Your task to perform on an android device: add a contact Image 0: 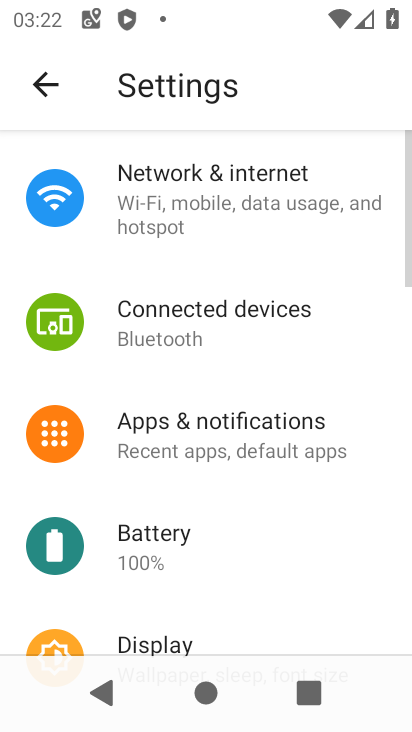
Step 0: press home button
Your task to perform on an android device: add a contact Image 1: 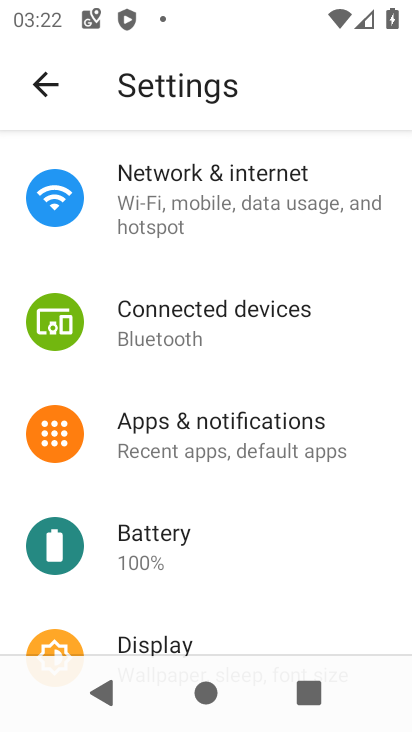
Step 1: press home button
Your task to perform on an android device: add a contact Image 2: 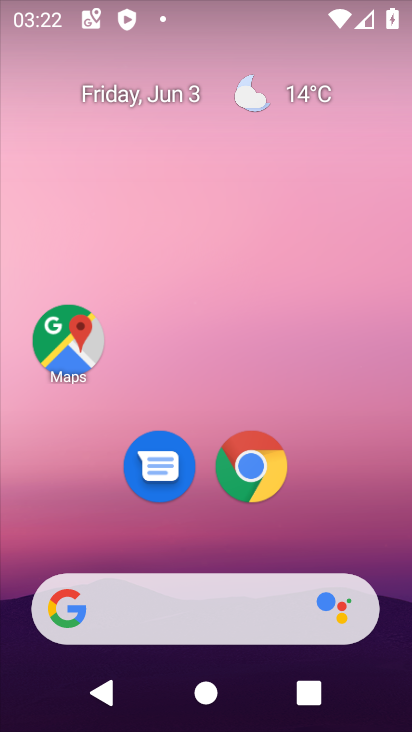
Step 2: drag from (201, 549) to (243, 83)
Your task to perform on an android device: add a contact Image 3: 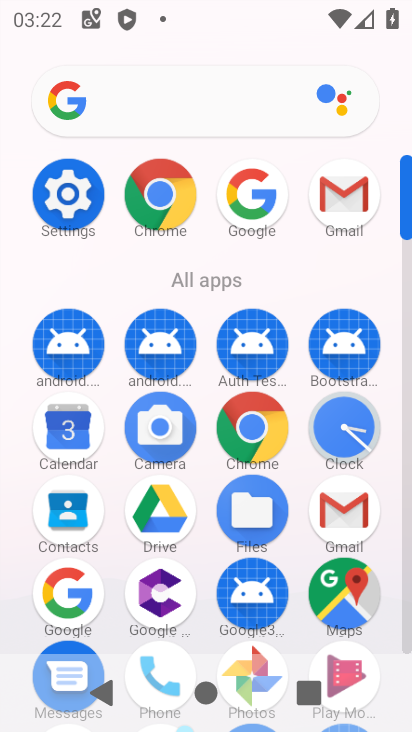
Step 3: click (63, 502)
Your task to perform on an android device: add a contact Image 4: 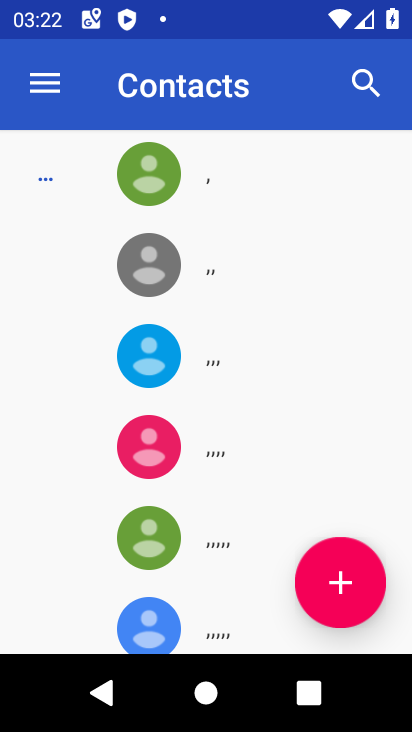
Step 4: click (338, 583)
Your task to perform on an android device: add a contact Image 5: 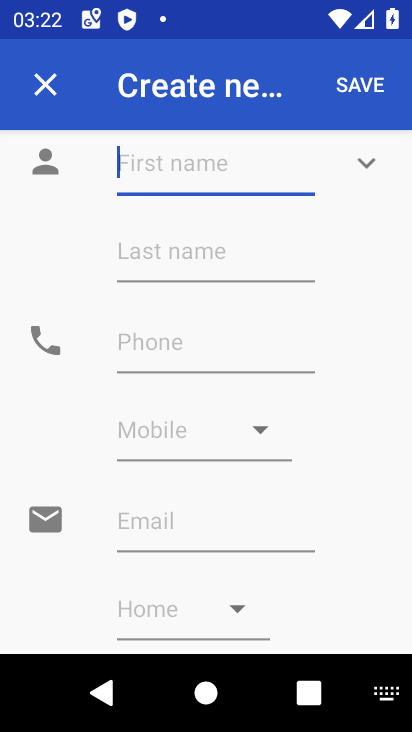
Step 5: type "hvtfctfghb"
Your task to perform on an android device: add a contact Image 6: 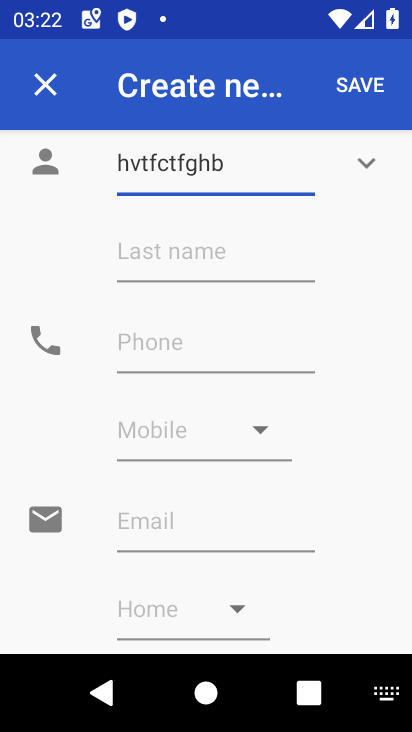
Step 6: click (349, 88)
Your task to perform on an android device: add a contact Image 7: 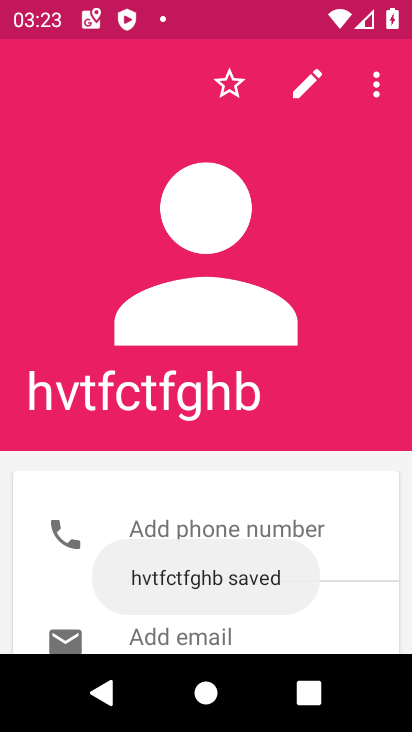
Step 7: task complete